Your task to perform on an android device: clear history in the chrome app Image 0: 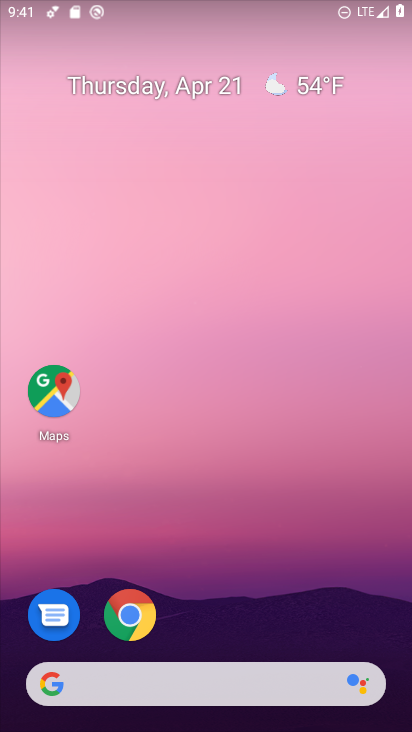
Step 0: drag from (264, 590) to (322, 41)
Your task to perform on an android device: clear history in the chrome app Image 1: 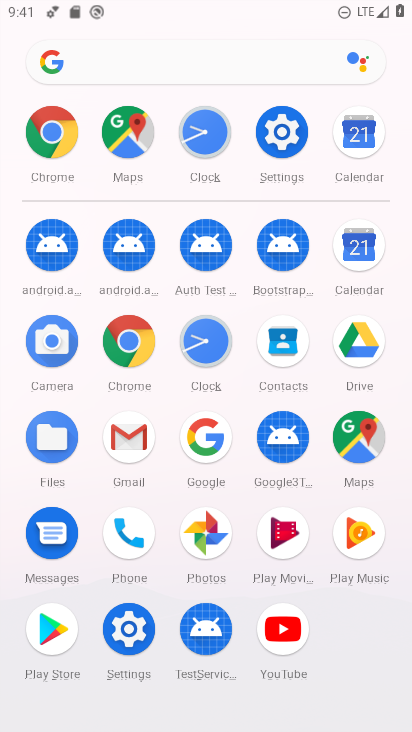
Step 1: click (127, 343)
Your task to perform on an android device: clear history in the chrome app Image 2: 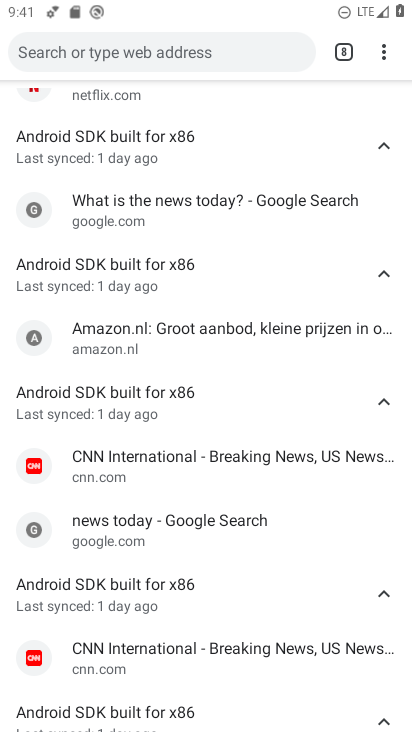
Step 2: drag from (380, 60) to (174, 292)
Your task to perform on an android device: clear history in the chrome app Image 3: 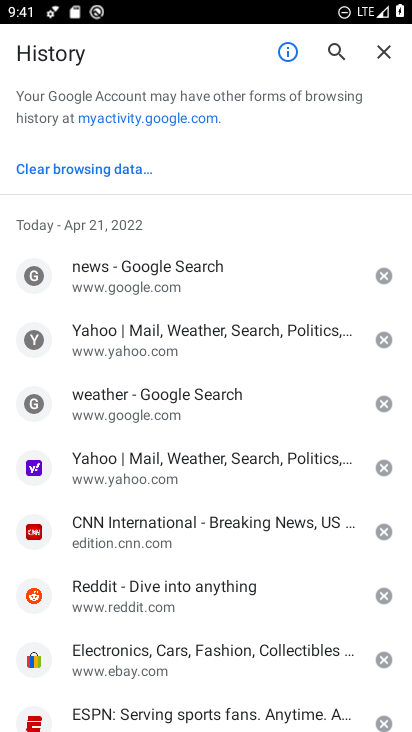
Step 3: click (54, 166)
Your task to perform on an android device: clear history in the chrome app Image 4: 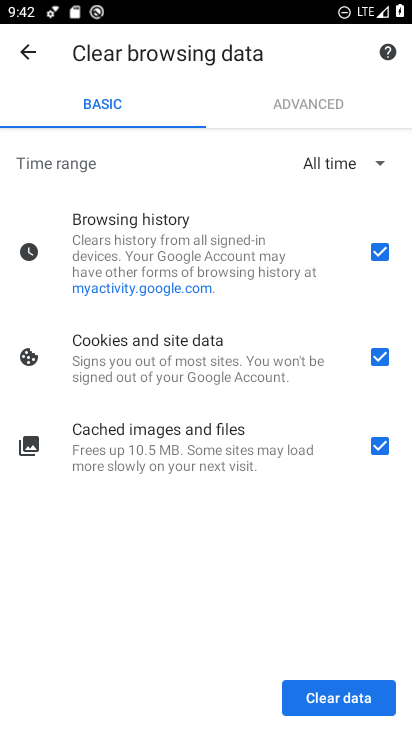
Step 4: click (382, 366)
Your task to perform on an android device: clear history in the chrome app Image 5: 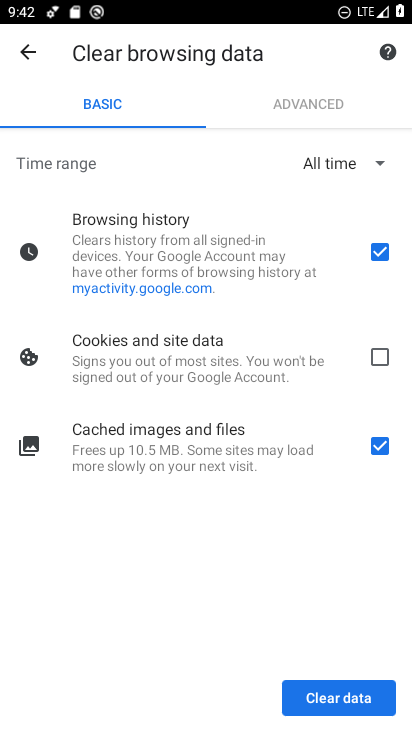
Step 5: click (385, 455)
Your task to perform on an android device: clear history in the chrome app Image 6: 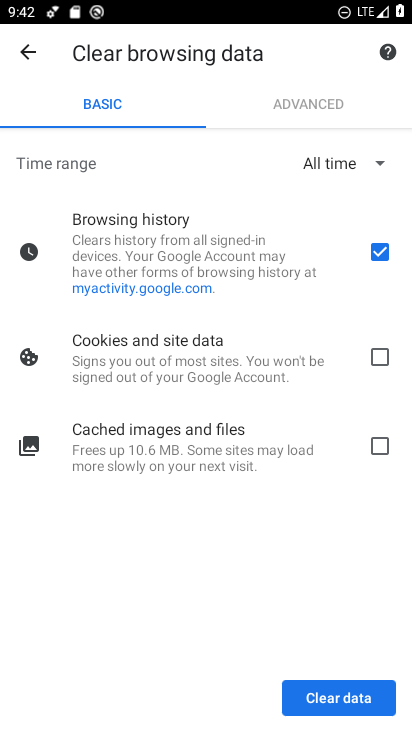
Step 6: click (355, 703)
Your task to perform on an android device: clear history in the chrome app Image 7: 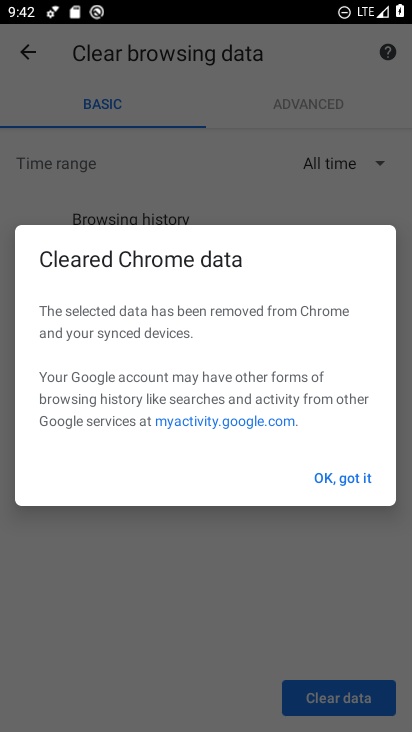
Step 7: click (335, 479)
Your task to perform on an android device: clear history in the chrome app Image 8: 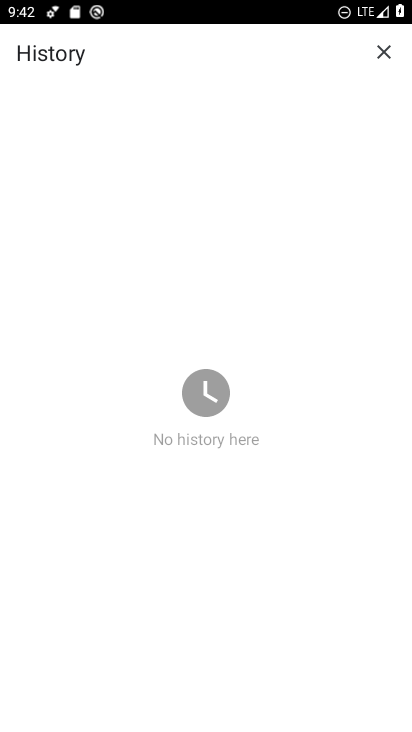
Step 8: task complete